Your task to perform on an android device: Open Yahoo.com Image 0: 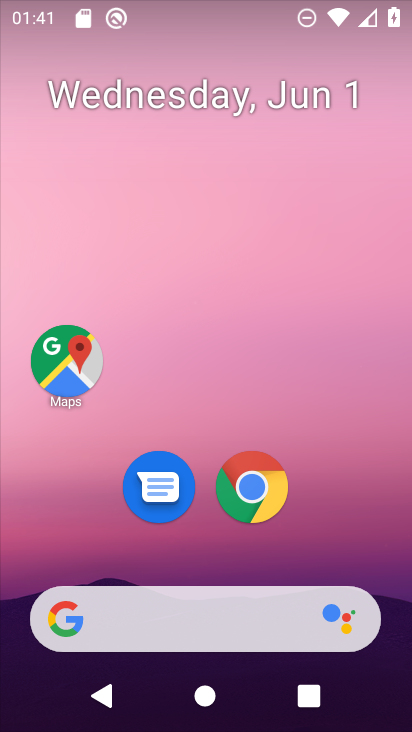
Step 0: click (253, 479)
Your task to perform on an android device: Open Yahoo.com Image 1: 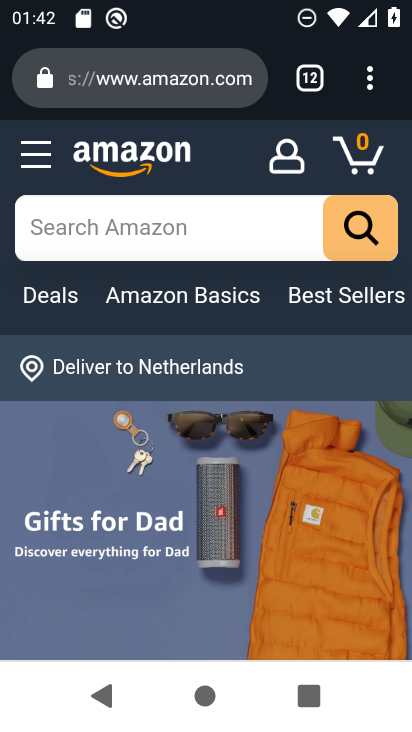
Step 1: click (363, 70)
Your task to perform on an android device: Open Yahoo.com Image 2: 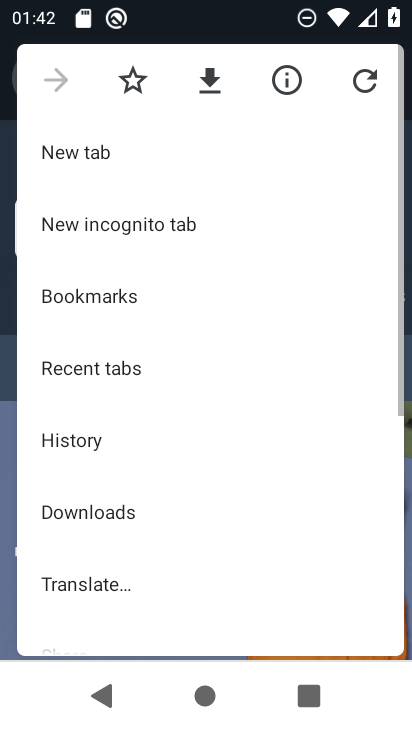
Step 2: click (121, 156)
Your task to perform on an android device: Open Yahoo.com Image 3: 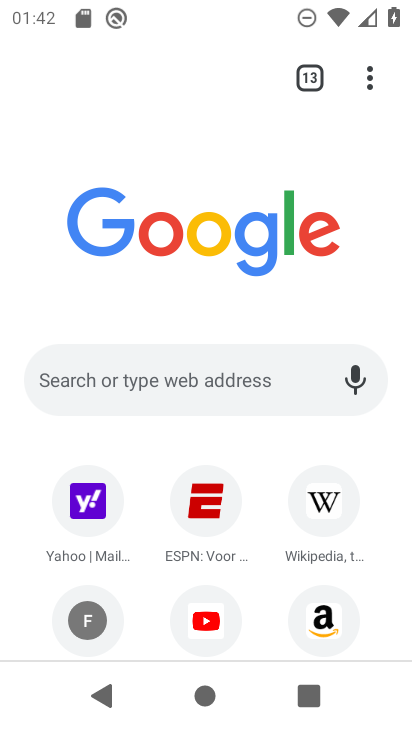
Step 3: click (71, 481)
Your task to perform on an android device: Open Yahoo.com Image 4: 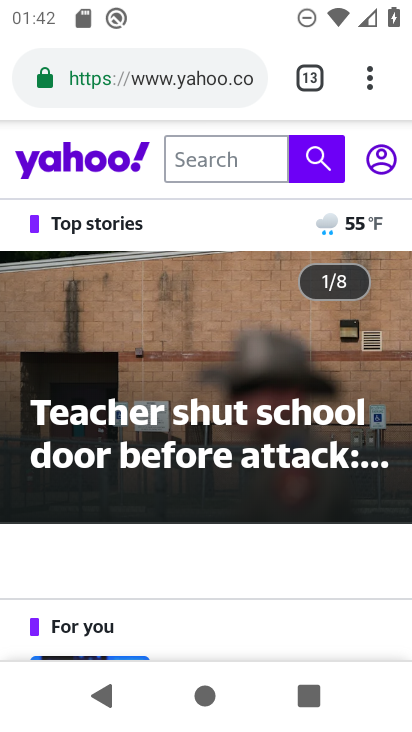
Step 4: task complete